Your task to perform on an android device: open app "TextNow: Call + Text Unlimited" (install if not already installed) Image 0: 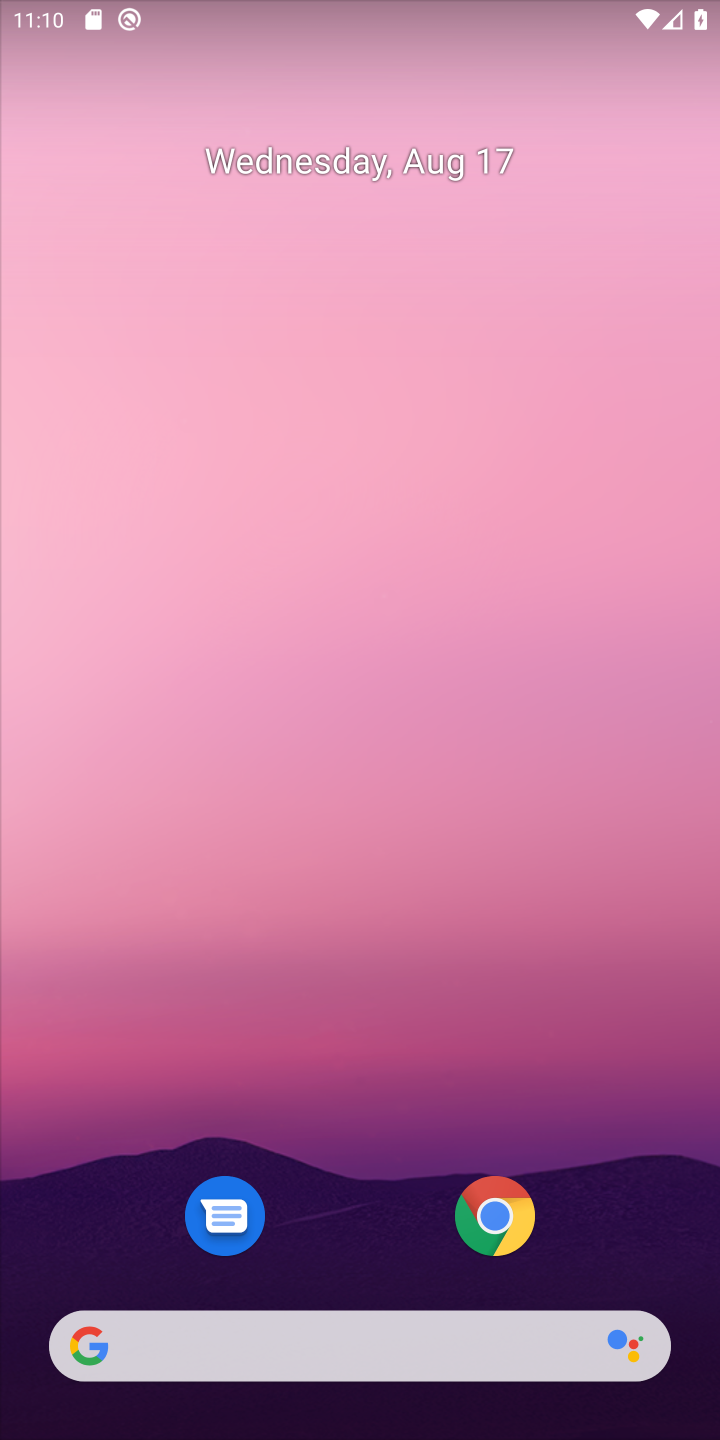
Step 0: drag from (657, 1147) to (622, 322)
Your task to perform on an android device: open app "TextNow: Call + Text Unlimited" (install if not already installed) Image 1: 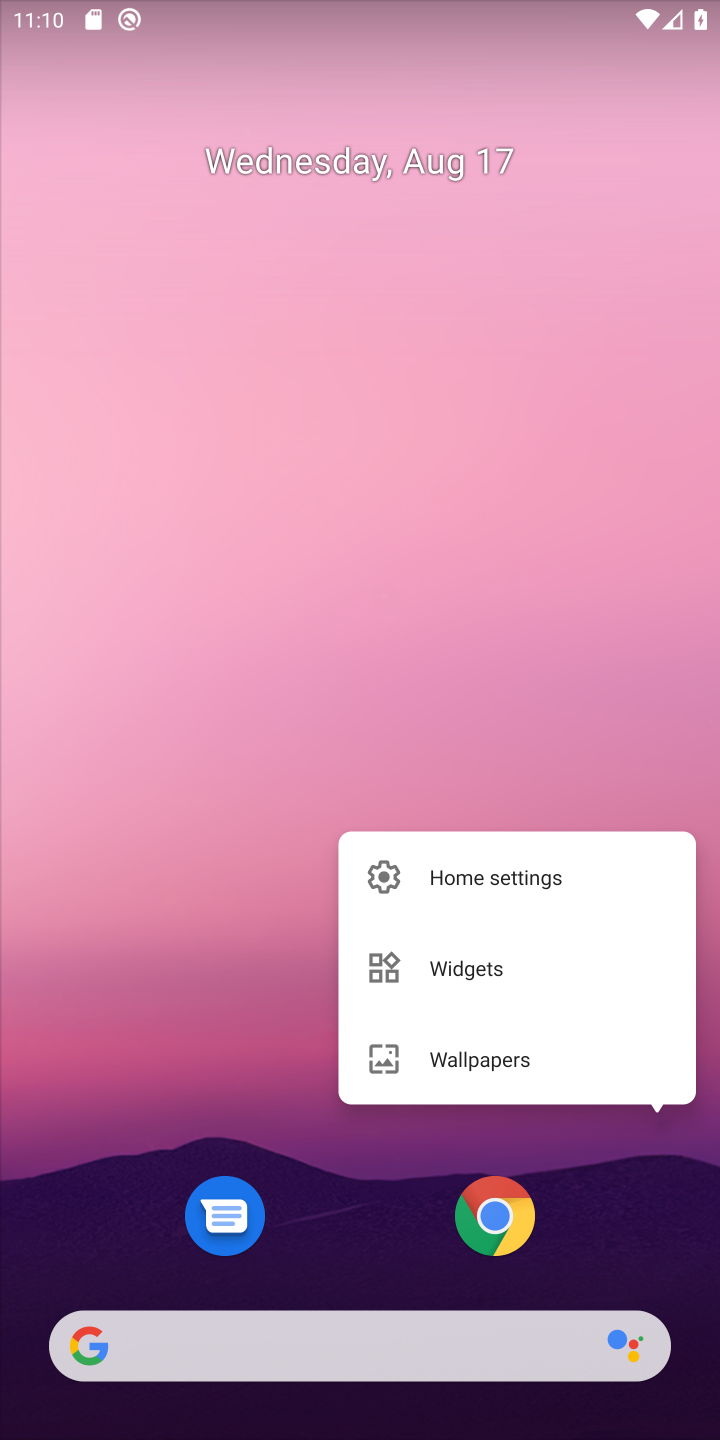
Step 1: click (270, 866)
Your task to perform on an android device: open app "TextNow: Call + Text Unlimited" (install if not already installed) Image 2: 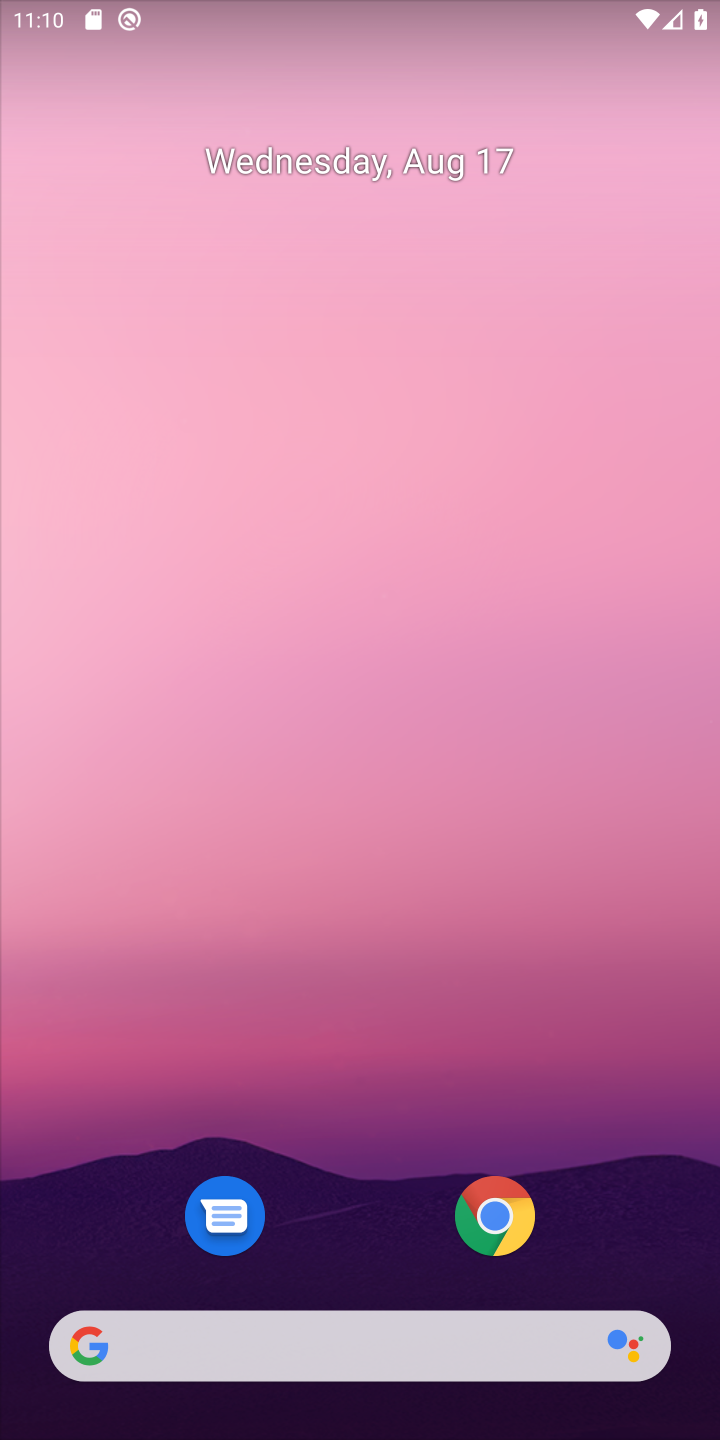
Step 2: drag from (602, 1167) to (494, 318)
Your task to perform on an android device: open app "TextNow: Call + Text Unlimited" (install if not already installed) Image 3: 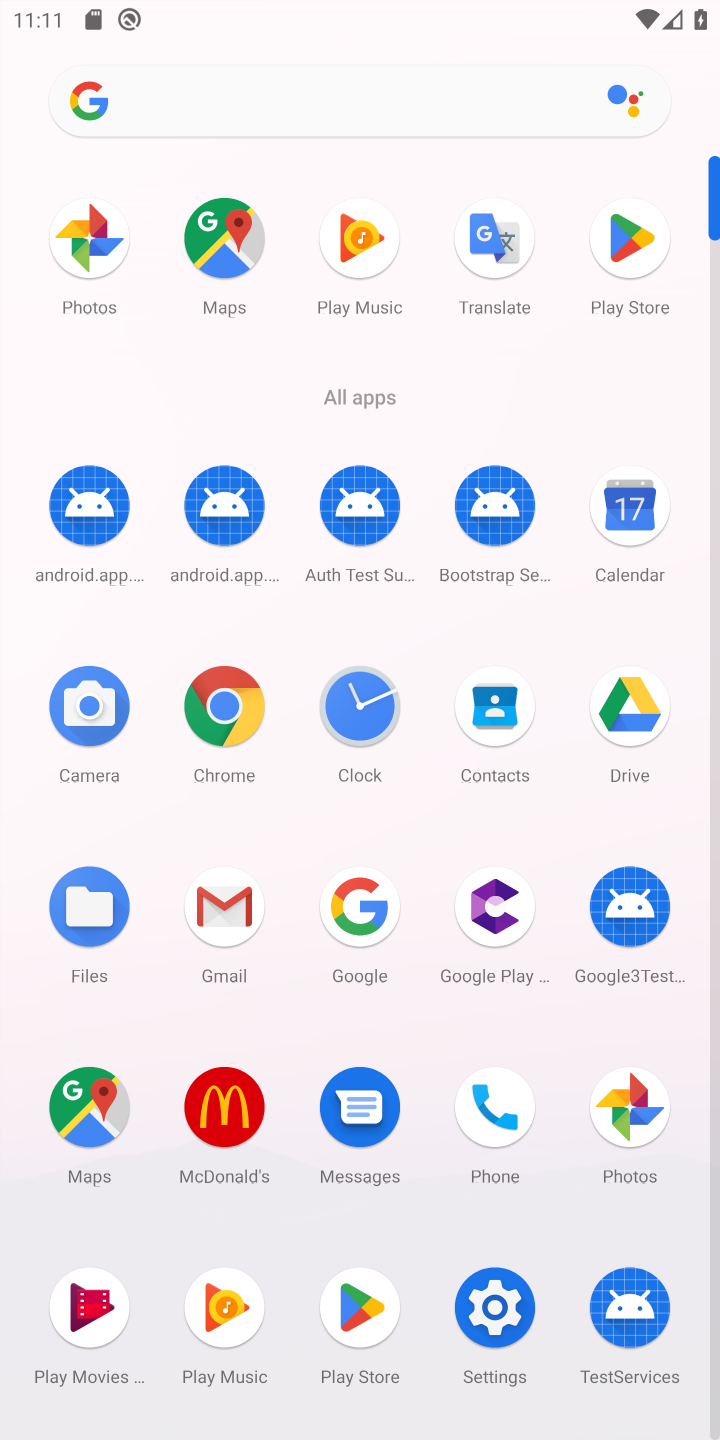
Step 3: click (638, 265)
Your task to perform on an android device: open app "TextNow: Call + Text Unlimited" (install if not already installed) Image 4: 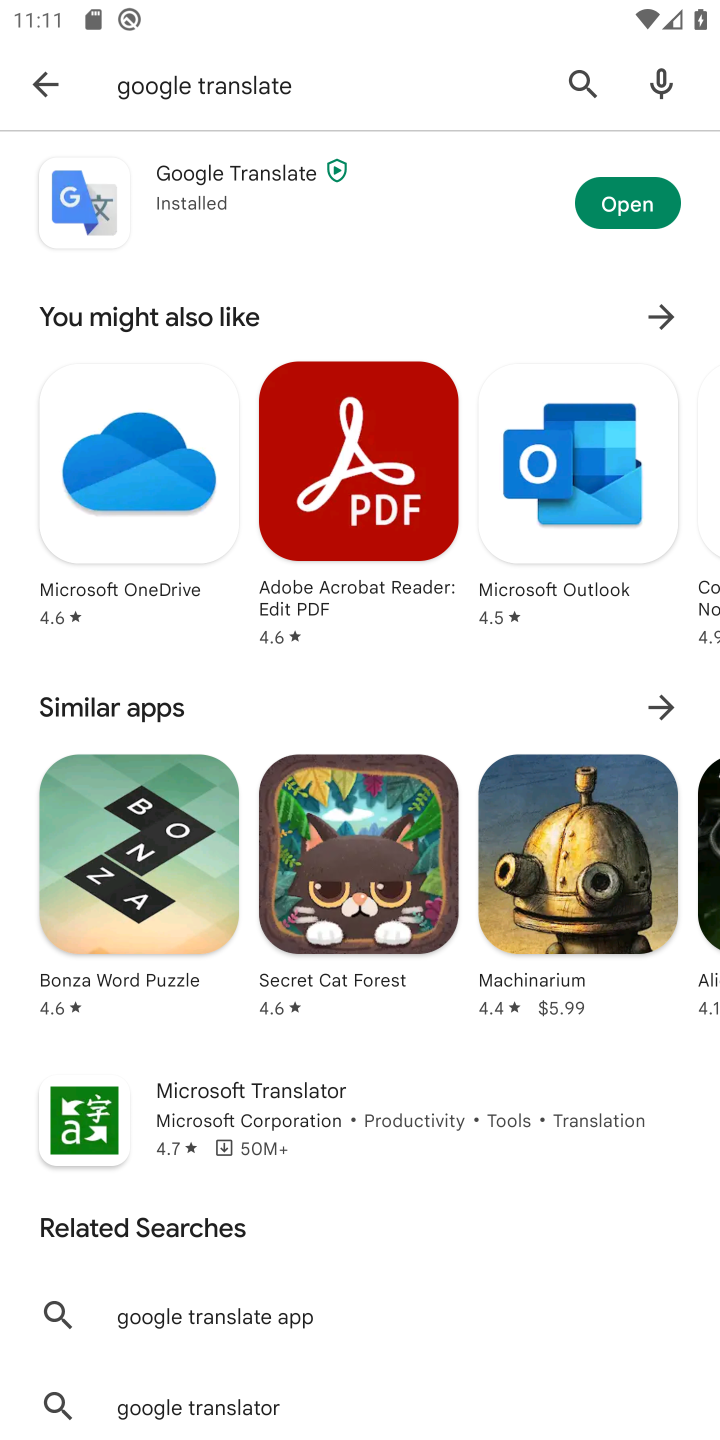
Step 4: click (49, 79)
Your task to perform on an android device: open app "TextNow: Call + Text Unlimited" (install if not already installed) Image 5: 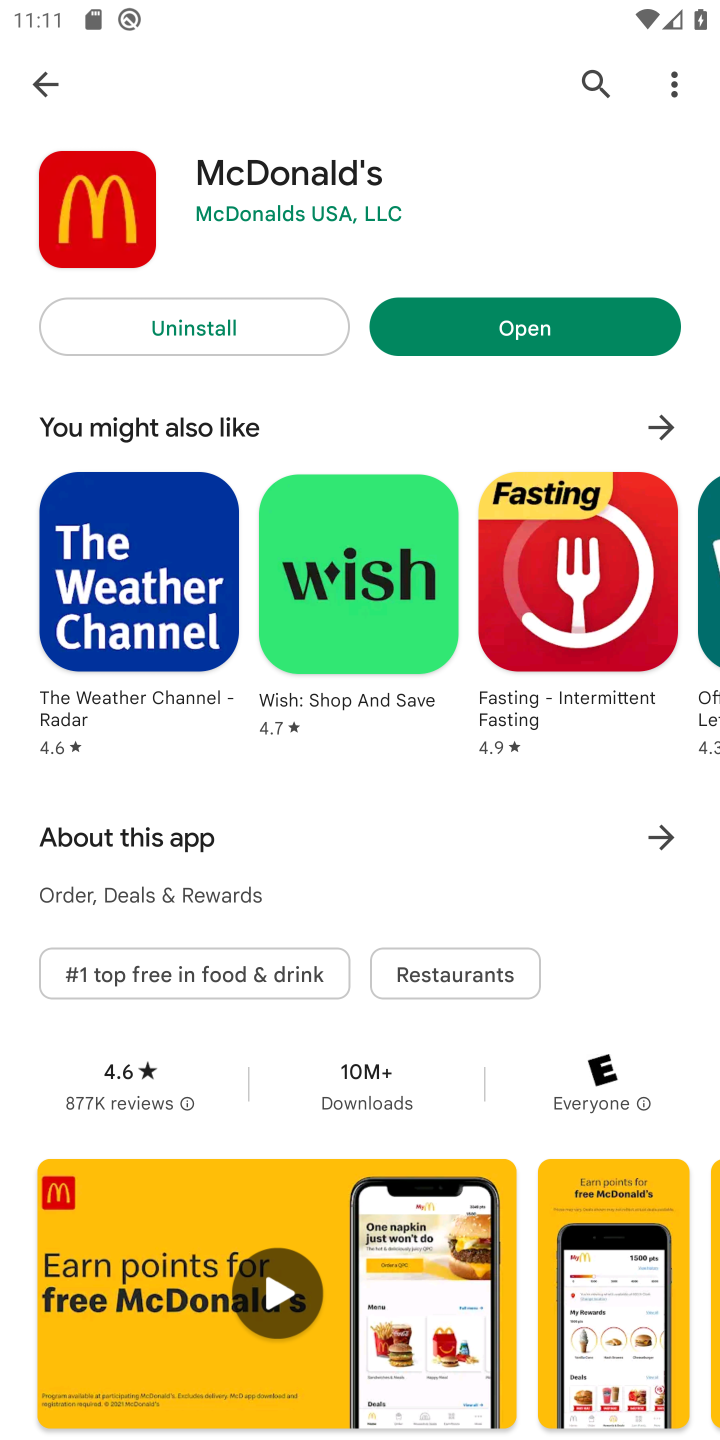
Step 5: click (584, 77)
Your task to perform on an android device: open app "TextNow: Call + Text Unlimited" (install if not already installed) Image 6: 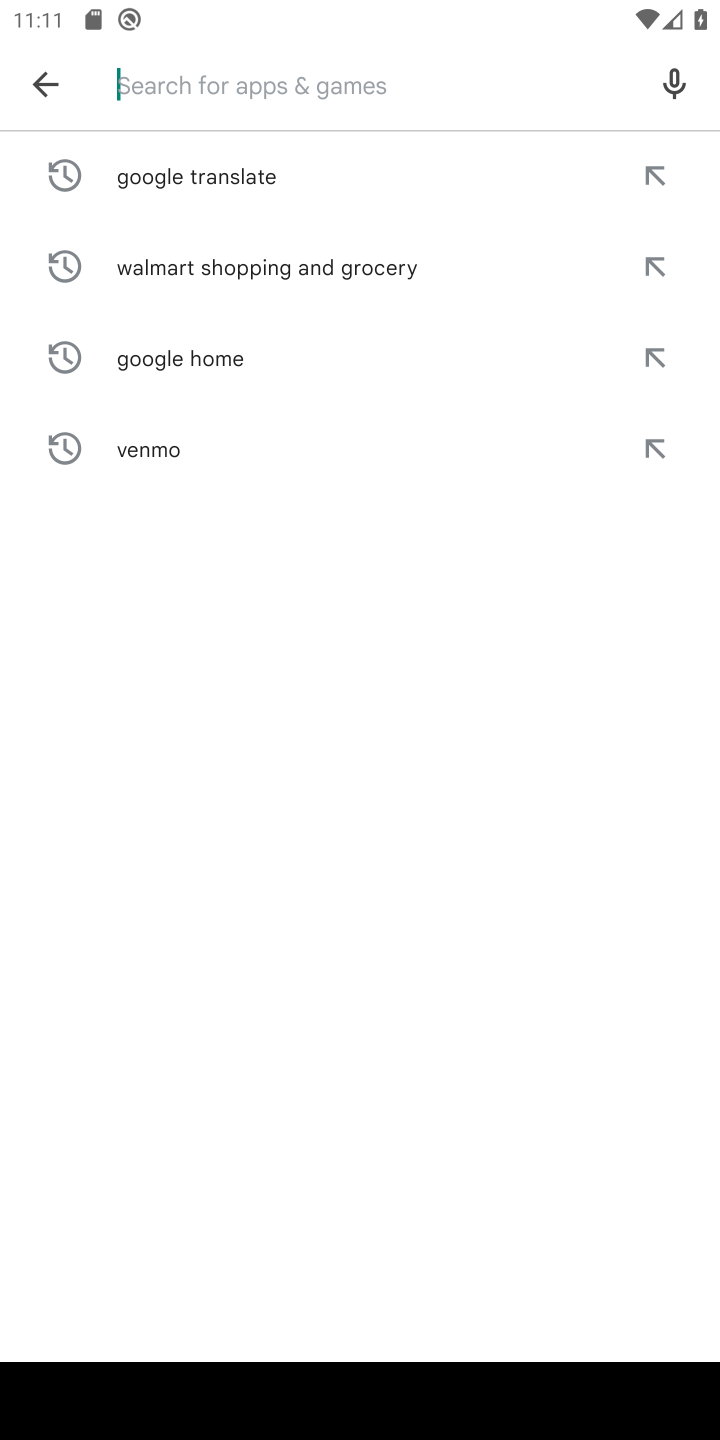
Step 6: type "textnow"
Your task to perform on an android device: open app "TextNow: Call + Text Unlimited" (install if not already installed) Image 7: 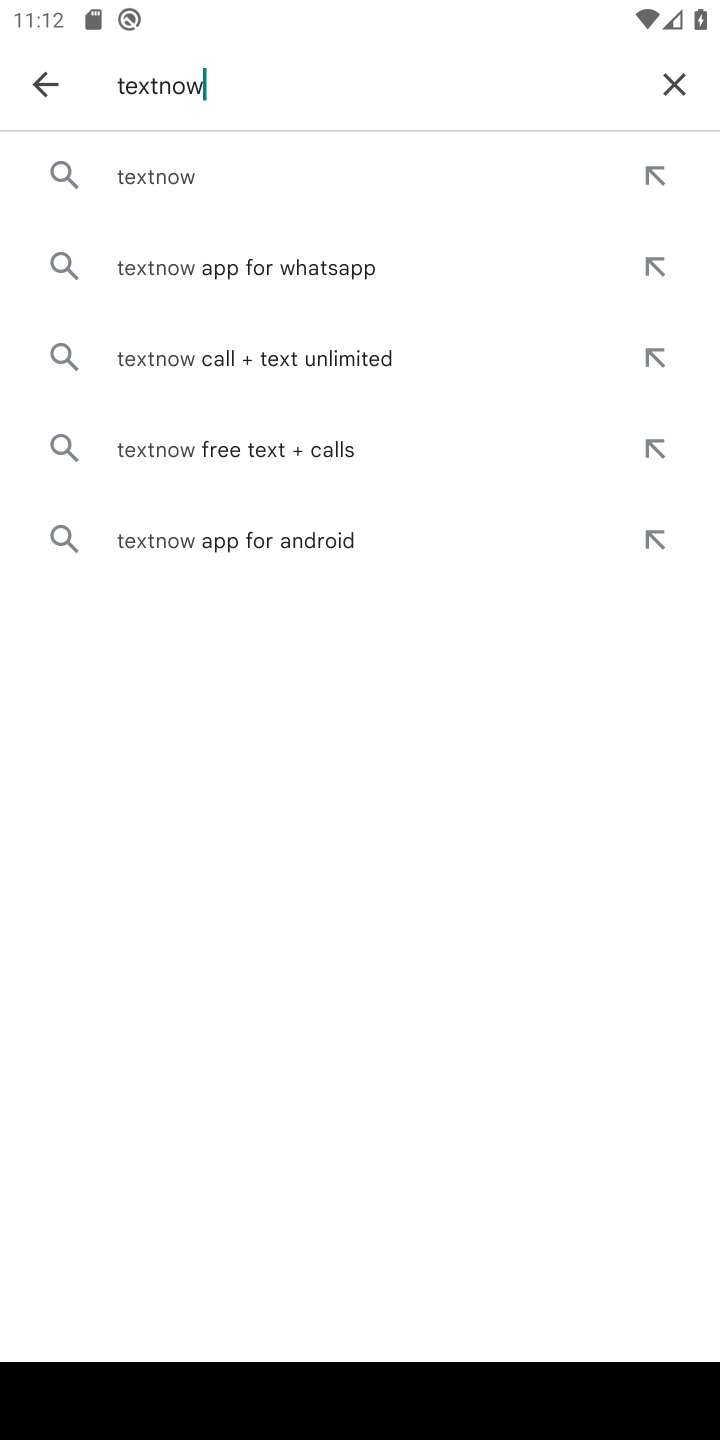
Step 7: click (201, 167)
Your task to perform on an android device: open app "TextNow: Call + Text Unlimited" (install if not already installed) Image 8: 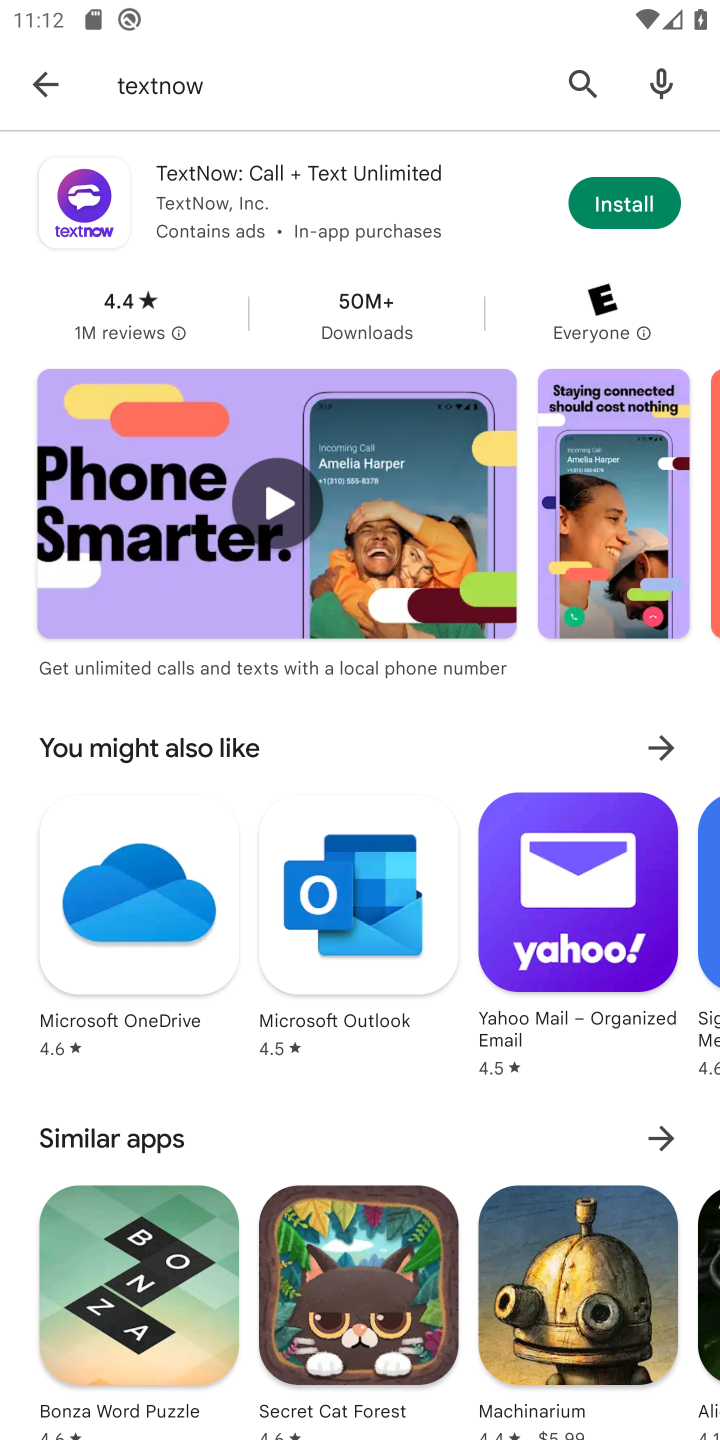
Step 8: click (633, 209)
Your task to perform on an android device: open app "TextNow: Call + Text Unlimited" (install if not already installed) Image 9: 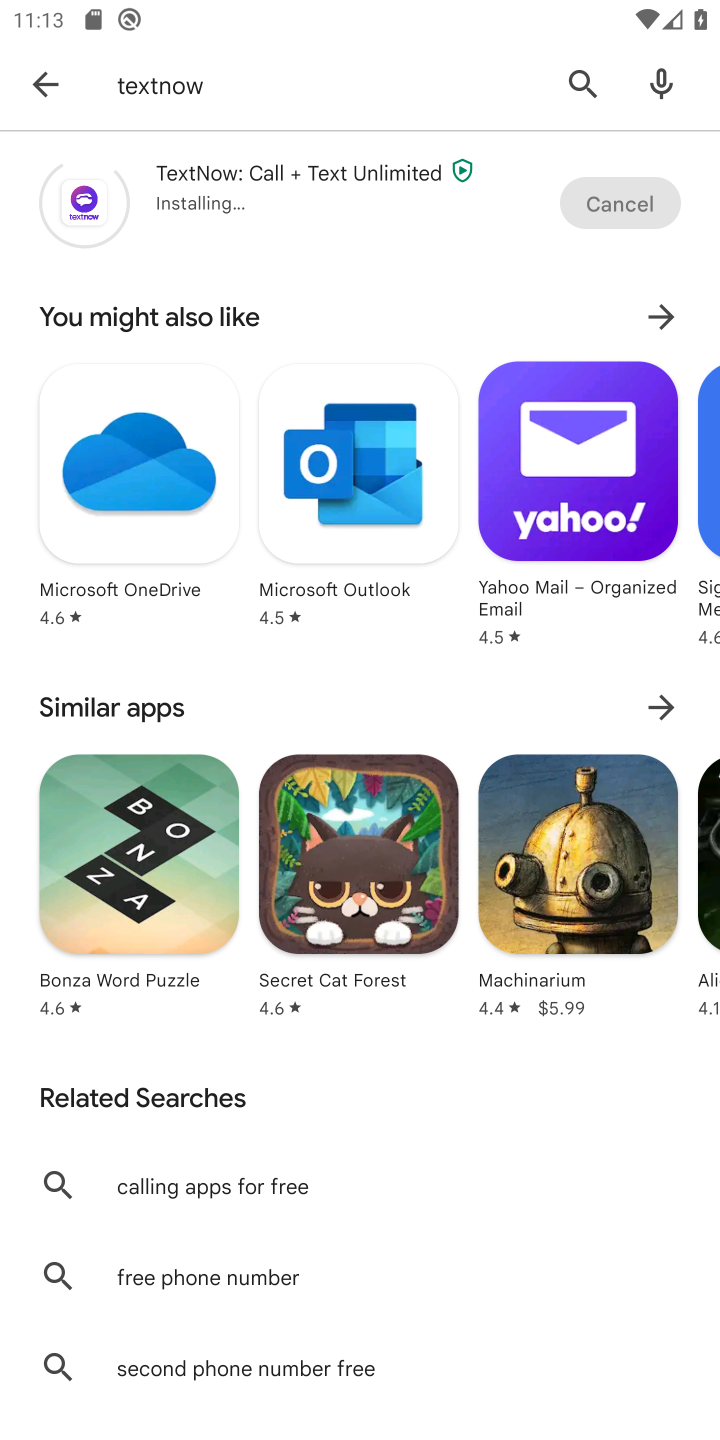
Step 9: click (404, 181)
Your task to perform on an android device: open app "TextNow: Call + Text Unlimited" (install if not already installed) Image 10: 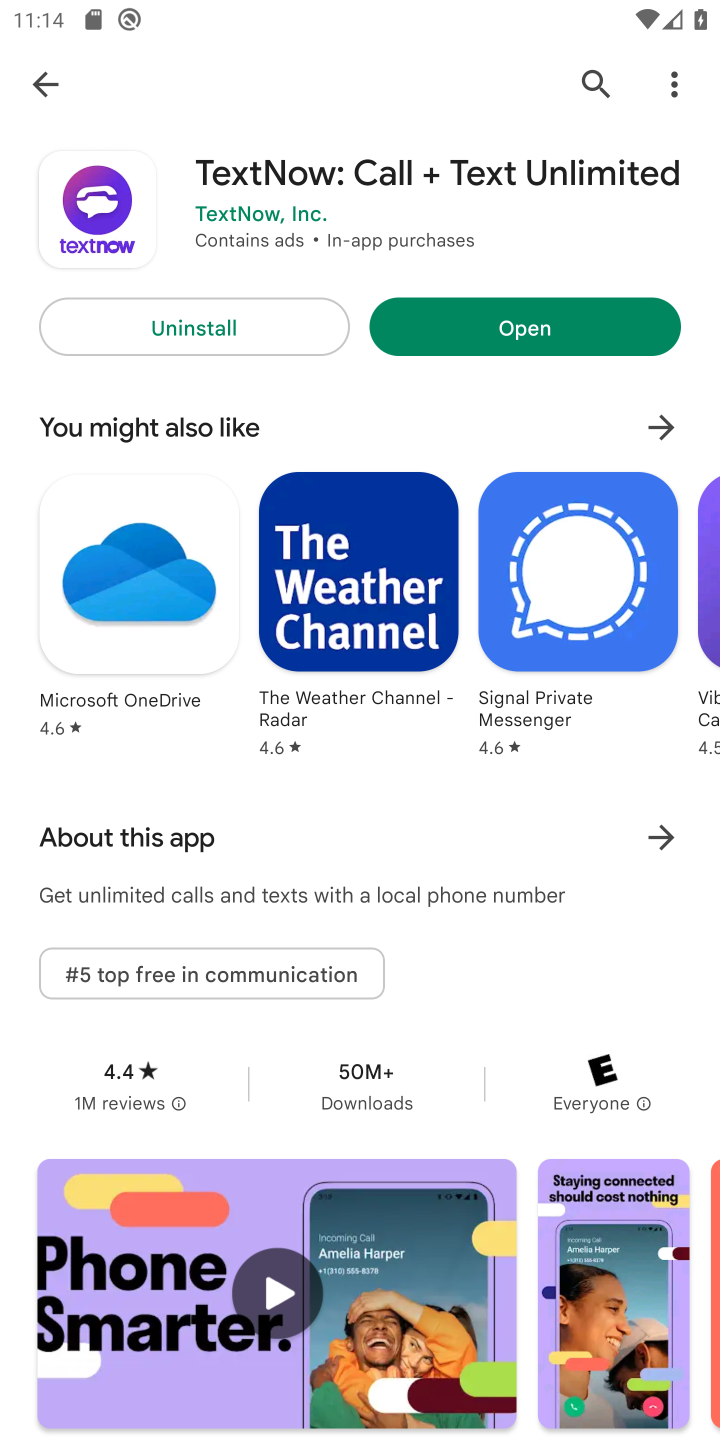
Step 10: click (649, 324)
Your task to perform on an android device: open app "TextNow: Call + Text Unlimited" (install if not already installed) Image 11: 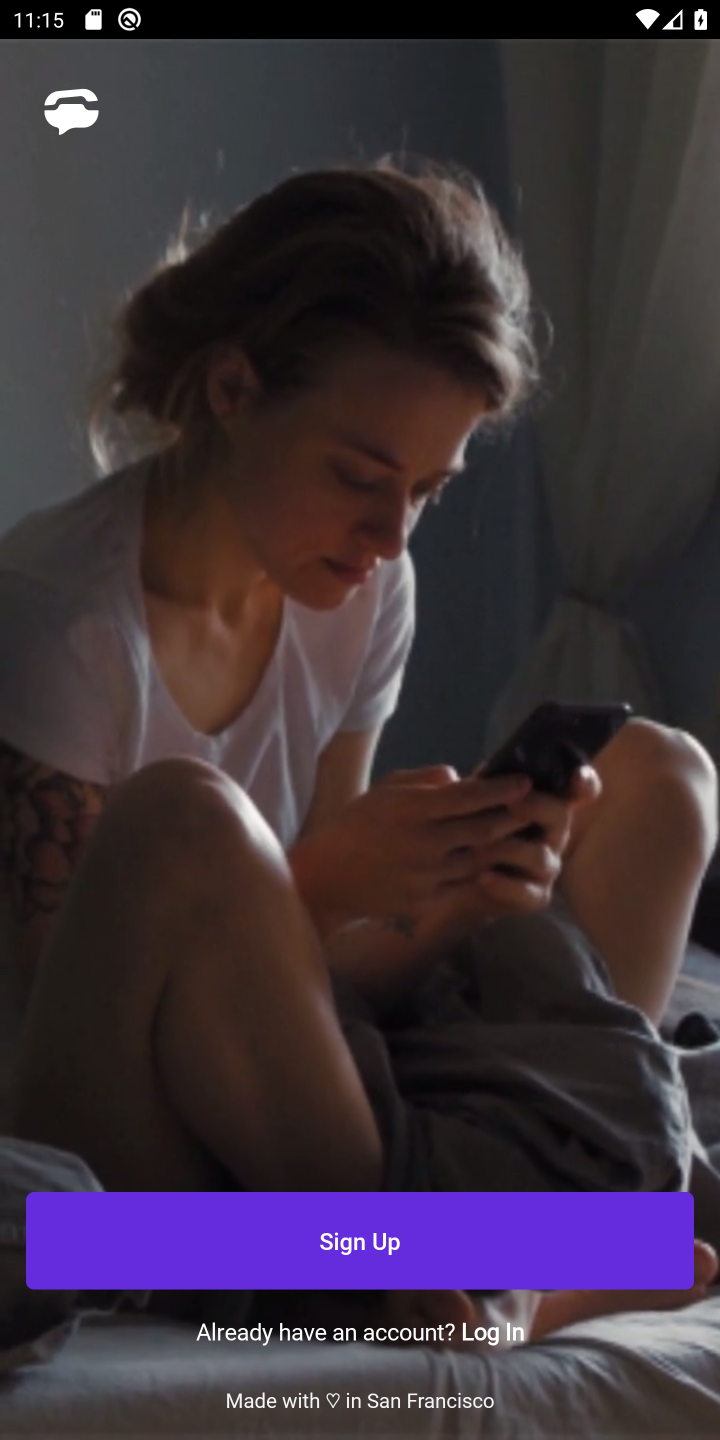
Step 11: task complete